Your task to perform on an android device: Search for the new Jordans on Nike.com Image 0: 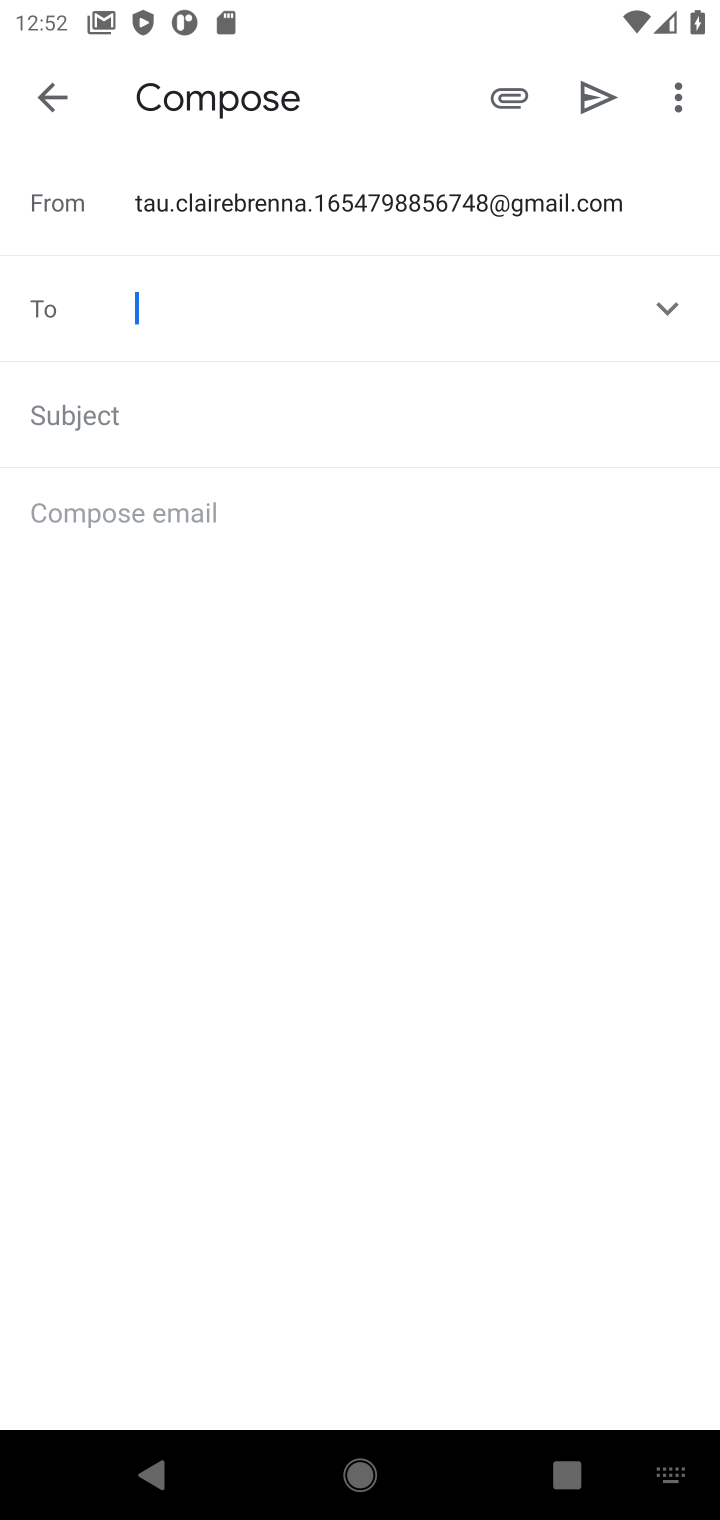
Step 0: press home button
Your task to perform on an android device: Search for the new Jordans on Nike.com Image 1: 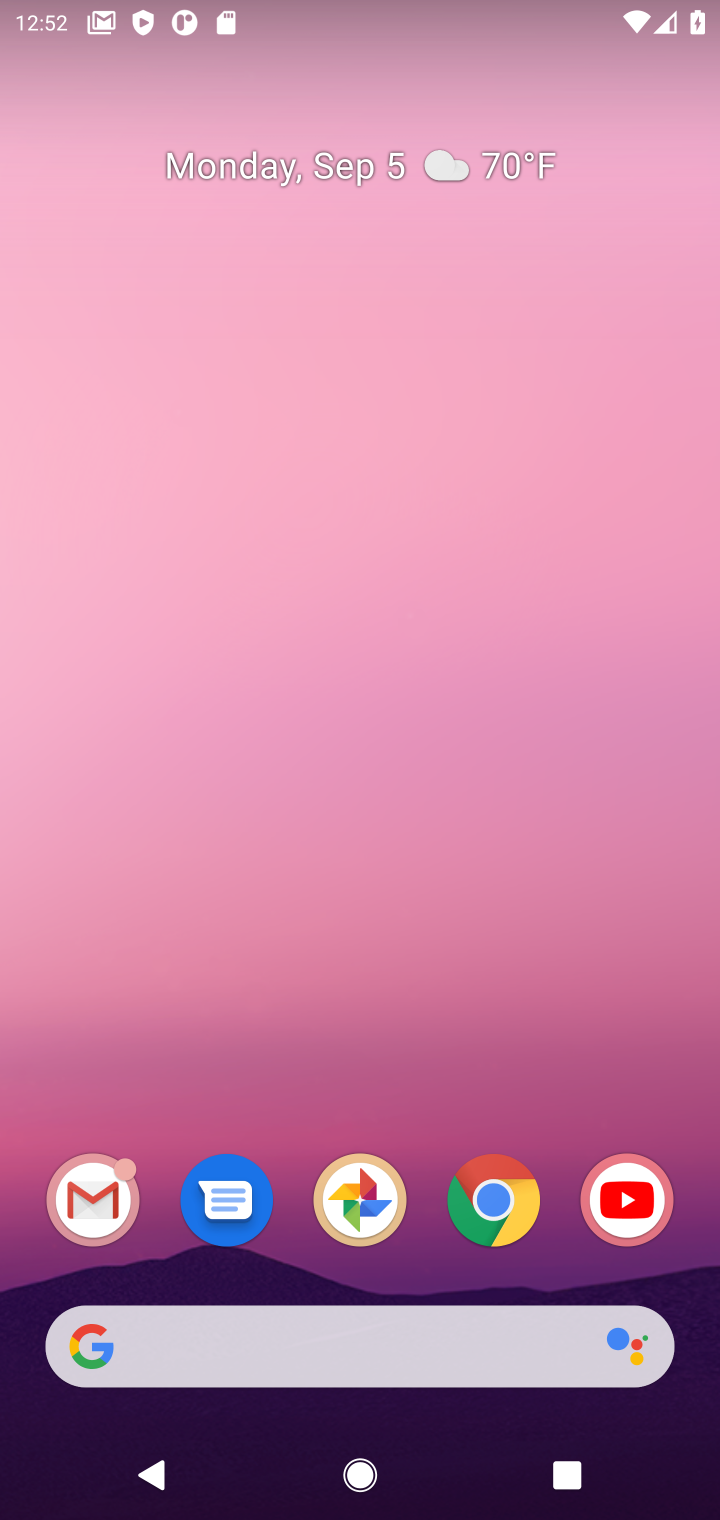
Step 1: drag from (291, 1352) to (344, 482)
Your task to perform on an android device: Search for the new Jordans on Nike.com Image 2: 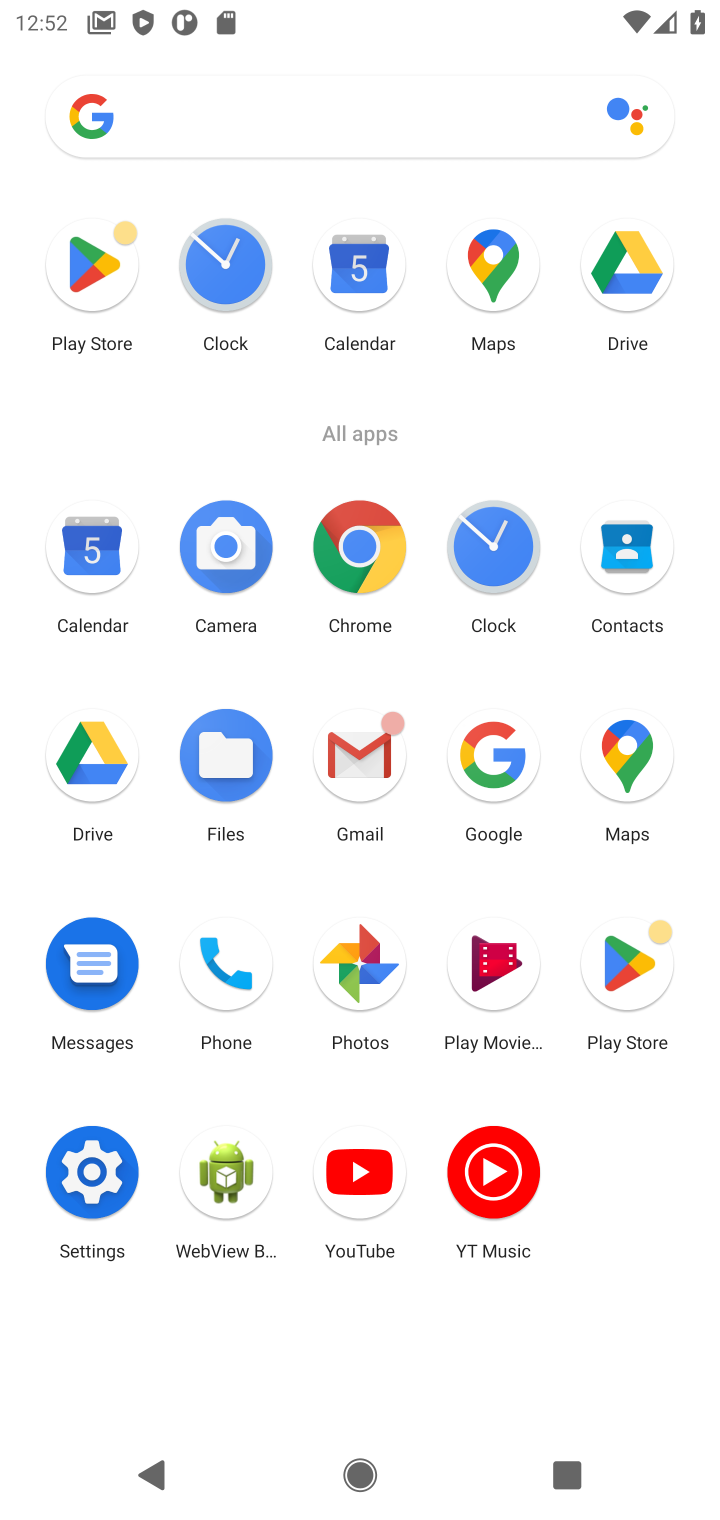
Step 2: click (357, 600)
Your task to perform on an android device: Search for the new Jordans on Nike.com Image 3: 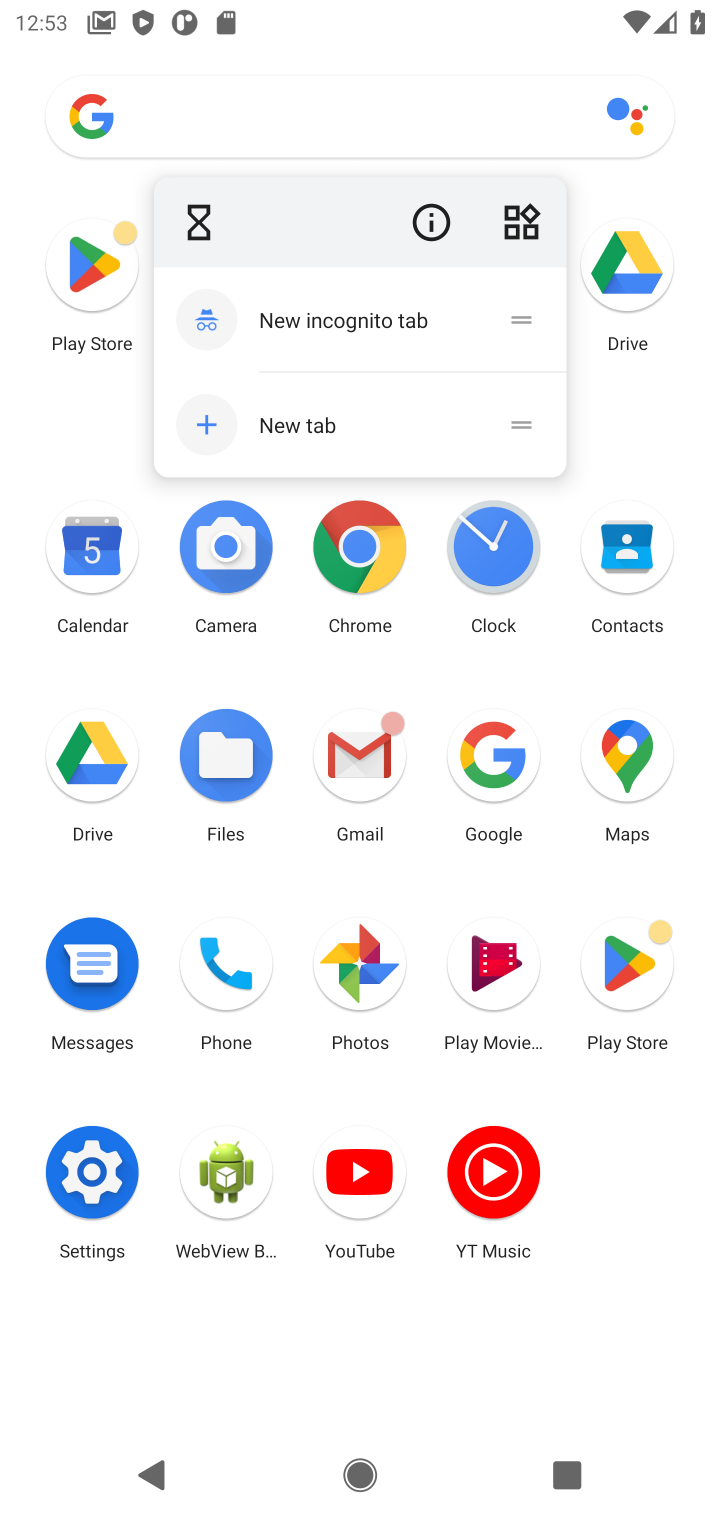
Step 3: click (357, 600)
Your task to perform on an android device: Search for the new Jordans on Nike.com Image 4: 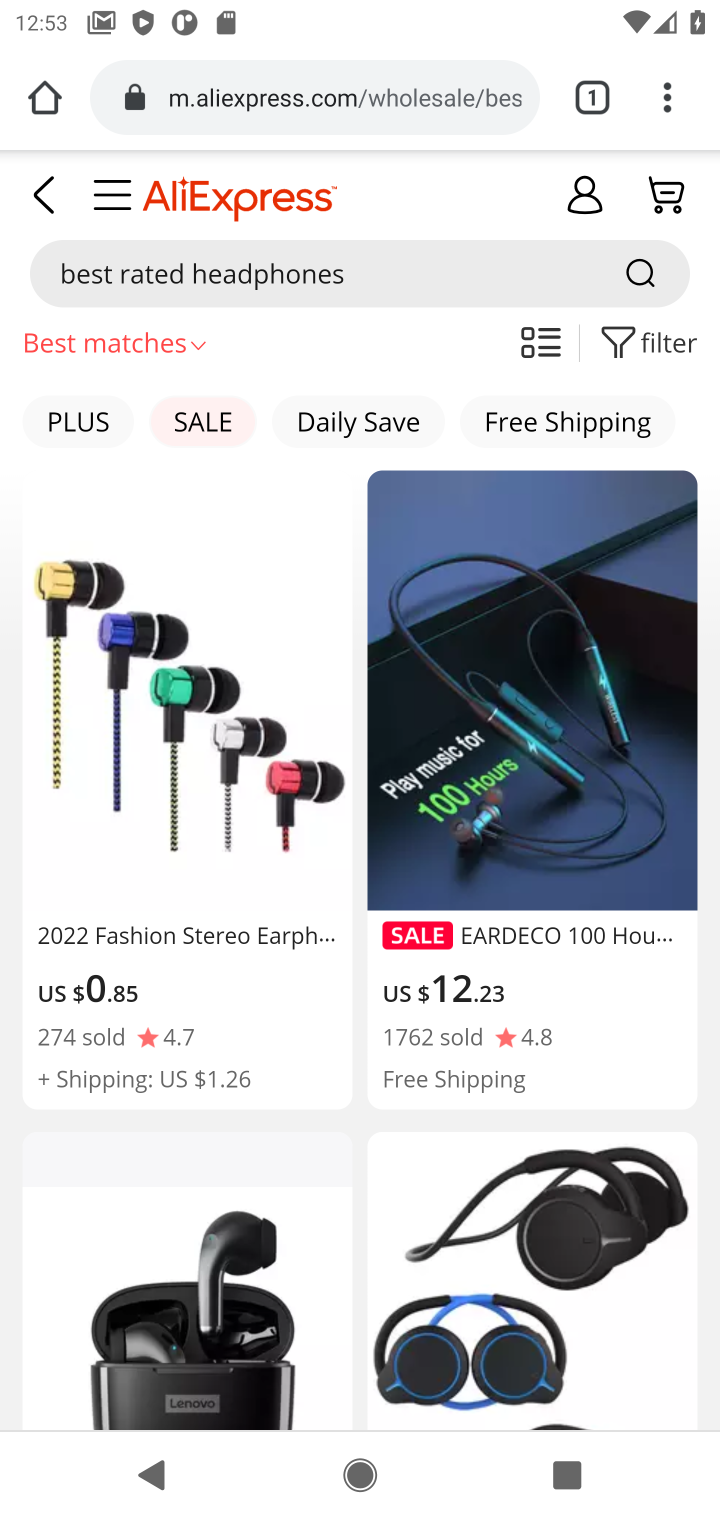
Step 4: click (414, 96)
Your task to perform on an android device: Search for the new Jordans on Nike.com Image 5: 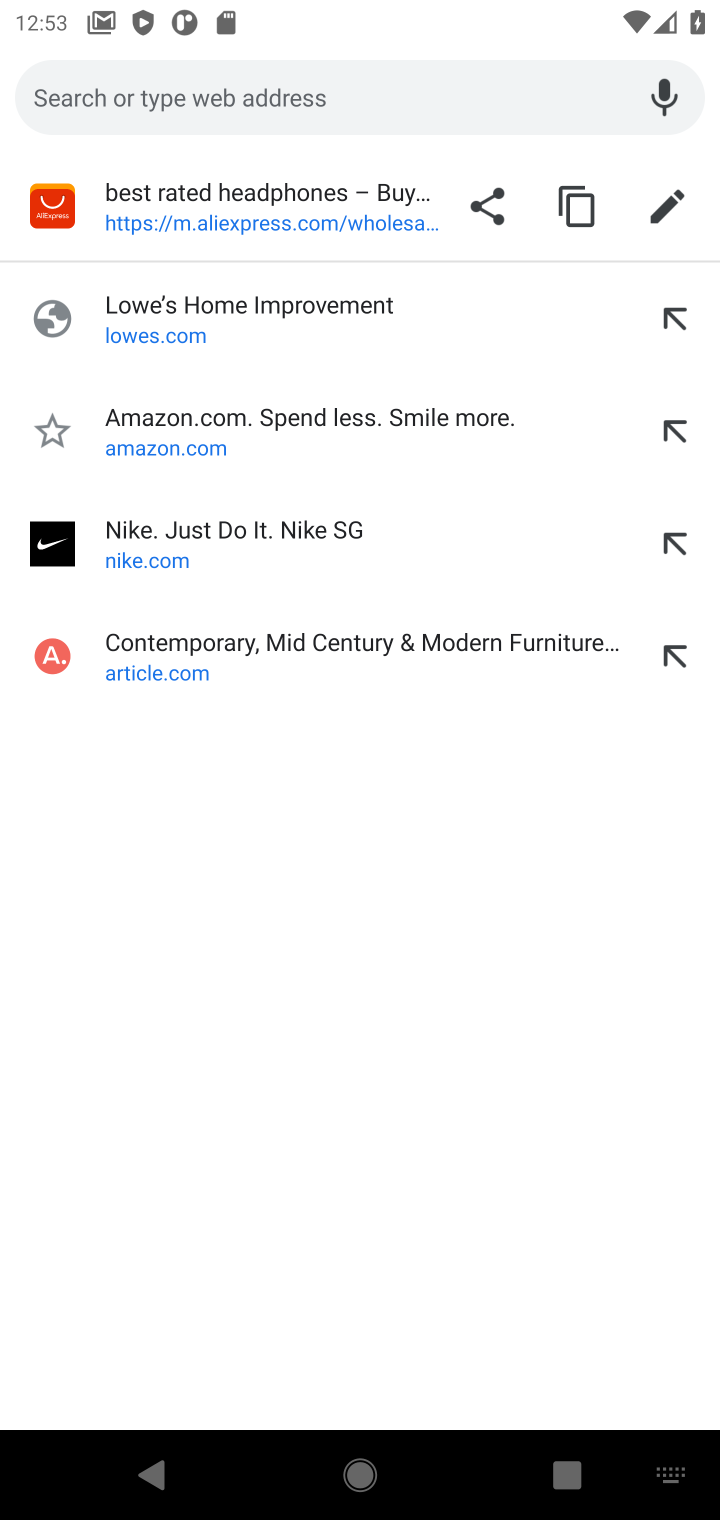
Step 5: type "Nike.com"
Your task to perform on an android device: Search for the new Jordans on Nike.com Image 6: 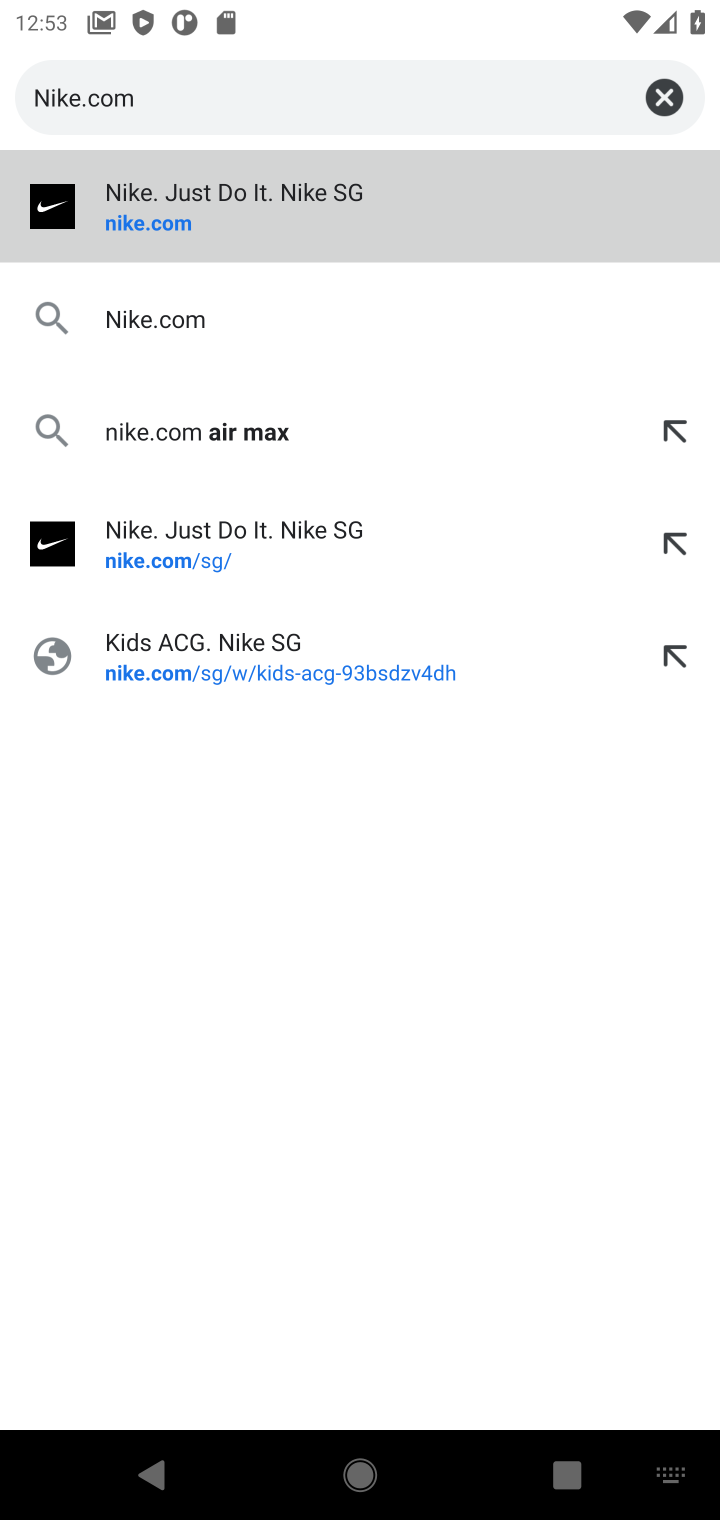
Step 6: click (209, 221)
Your task to perform on an android device: Search for the new Jordans on Nike.com Image 7: 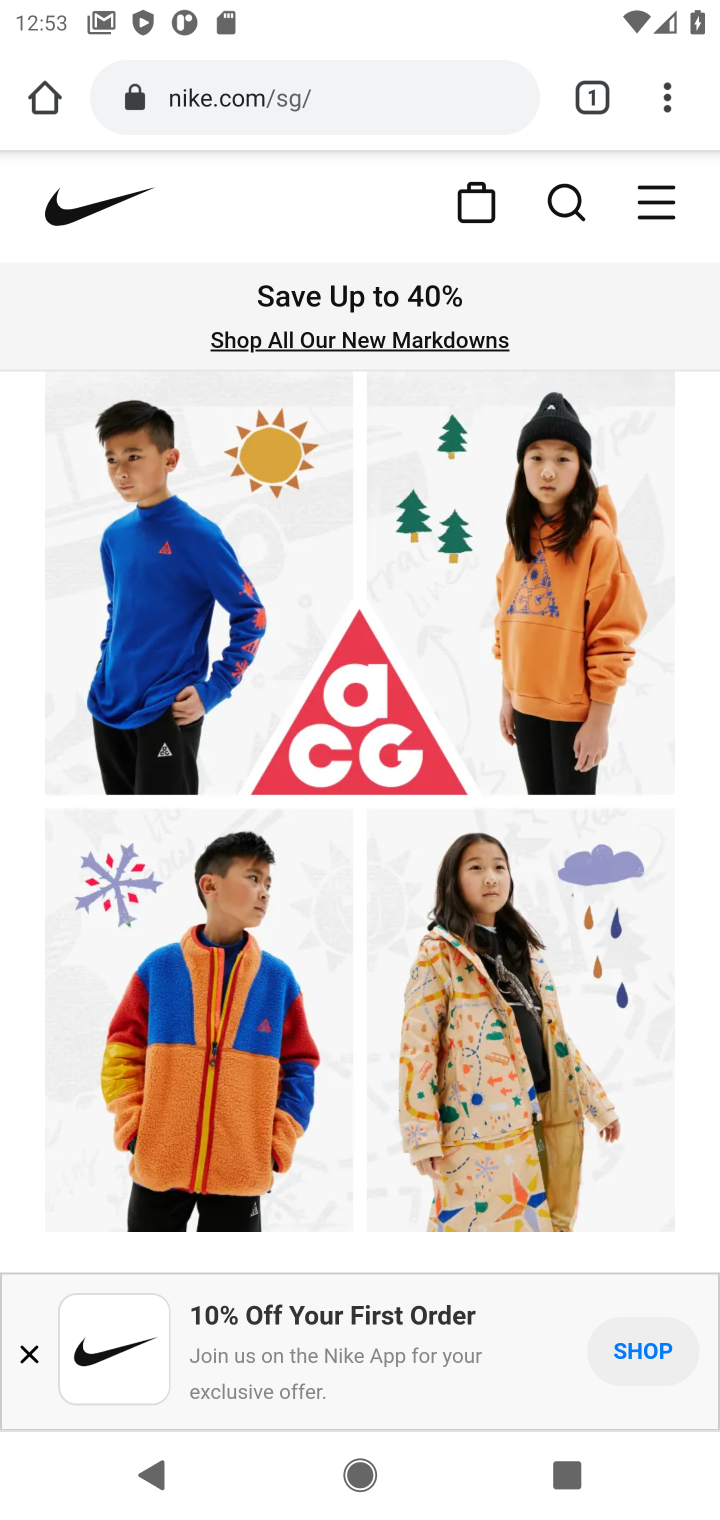
Step 7: click (568, 207)
Your task to perform on an android device: Search for the new Jordans on Nike.com Image 8: 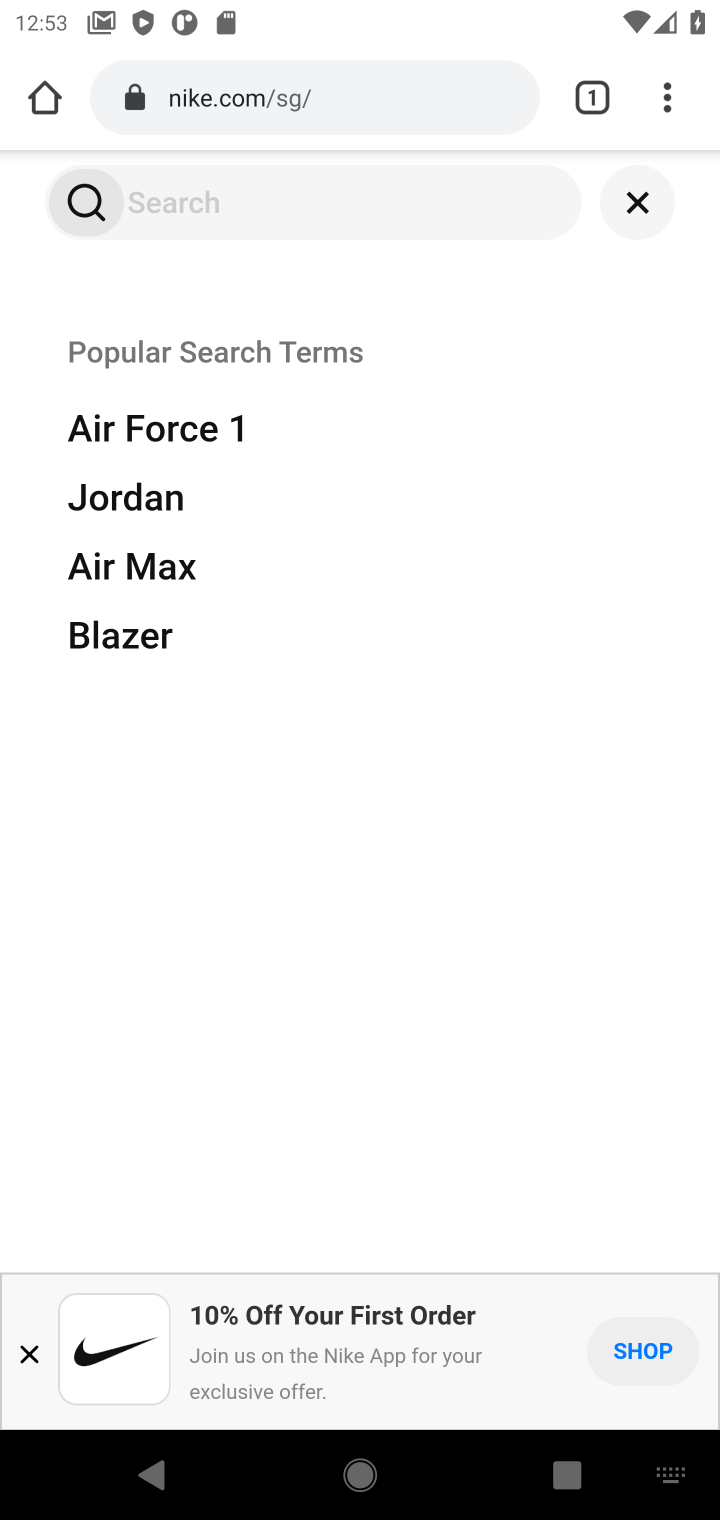
Step 8: type "new jordans"
Your task to perform on an android device: Search for the new Jordans on Nike.com Image 9: 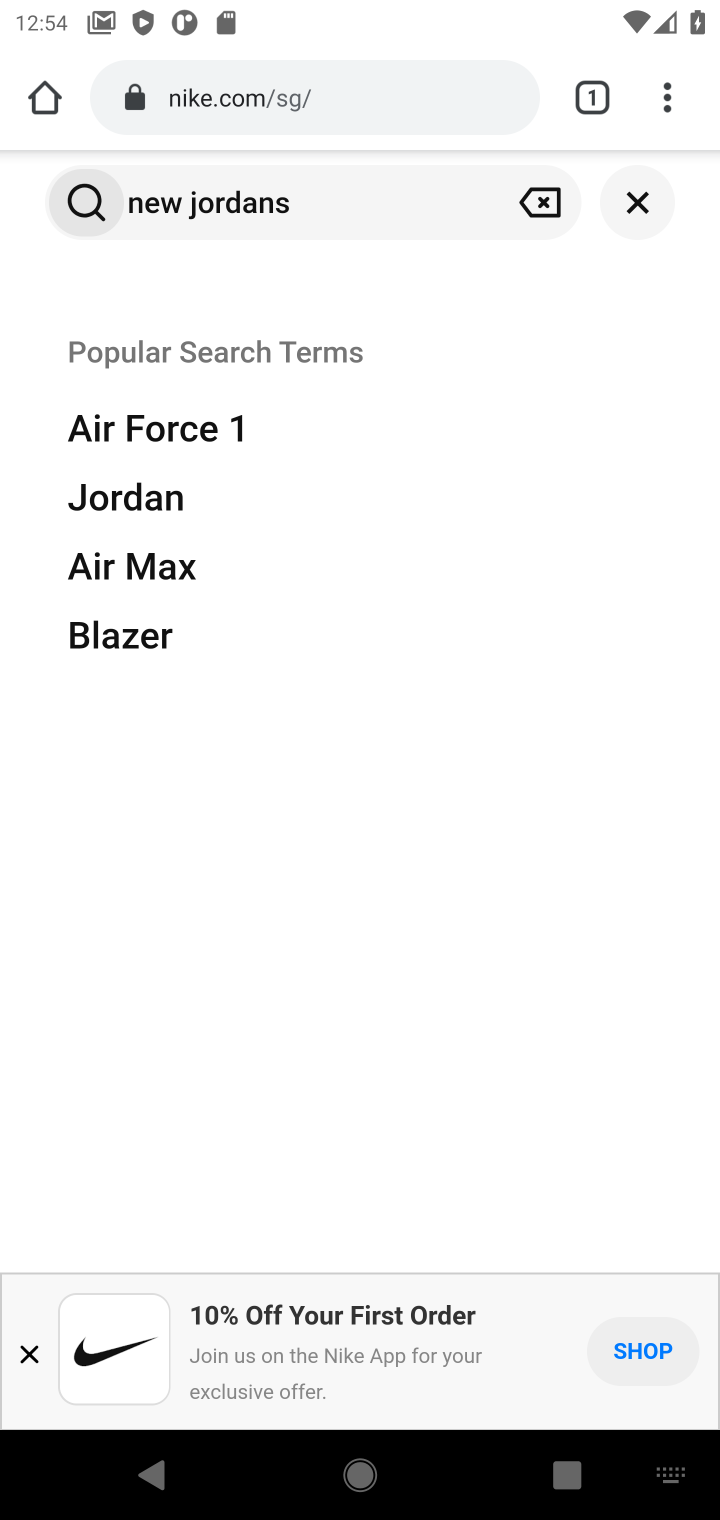
Step 9: click (90, 211)
Your task to perform on an android device: Search for the new Jordans on Nike.com Image 10: 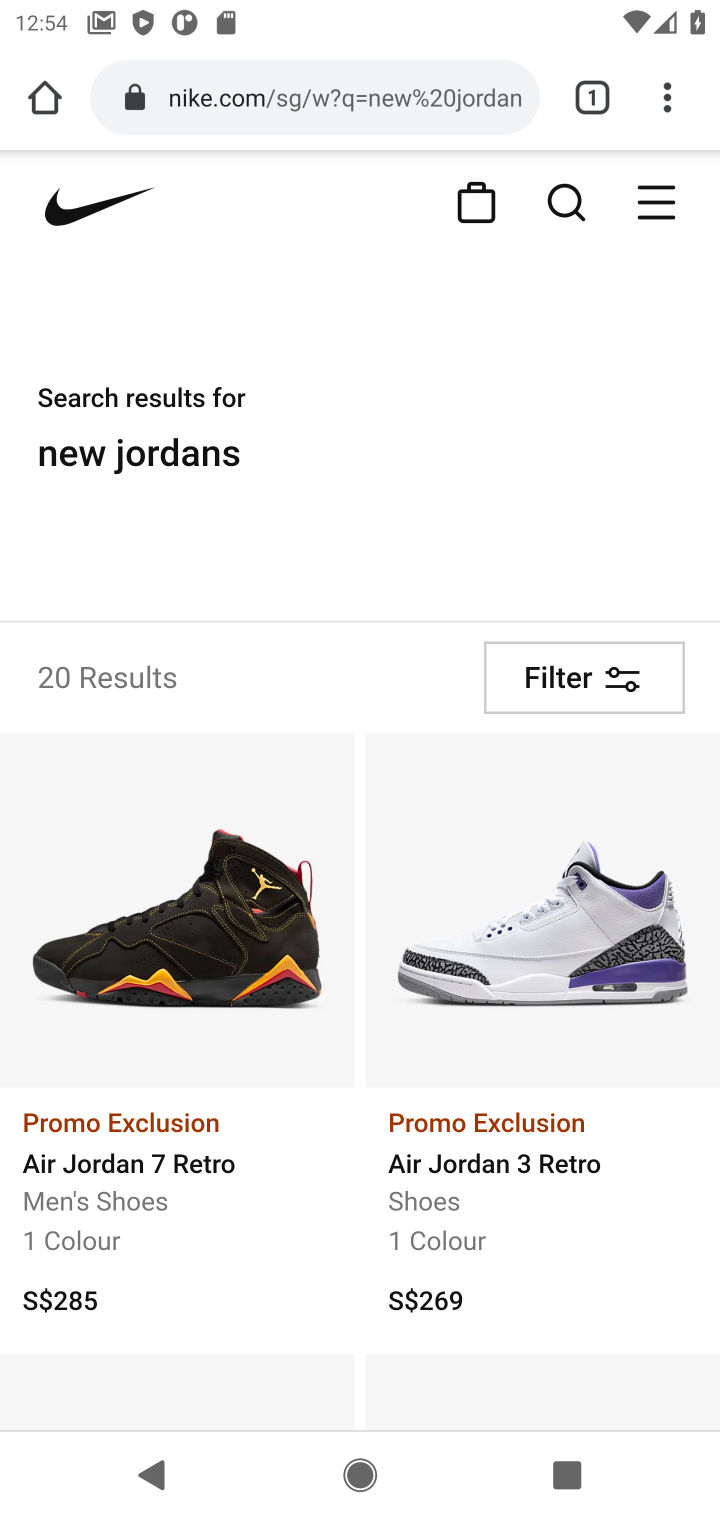
Step 10: task complete